Your task to perform on an android device: Go to internet settings Image 0: 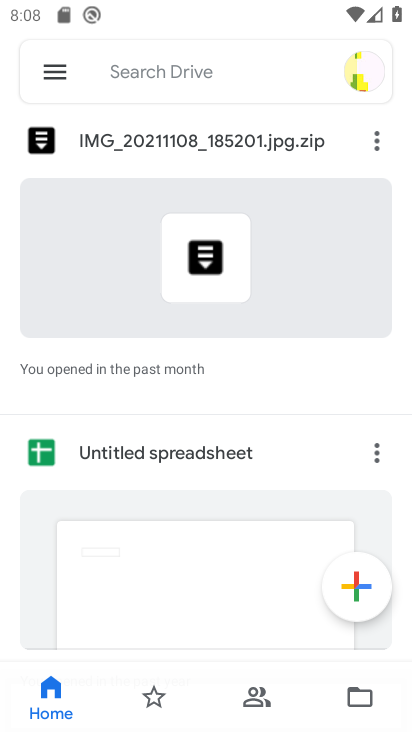
Step 0: drag from (260, 10) to (198, 630)
Your task to perform on an android device: Go to internet settings Image 1: 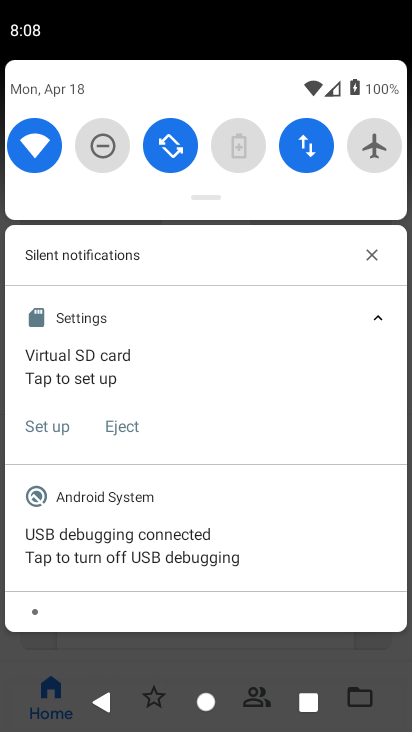
Step 1: drag from (223, 94) to (203, 544)
Your task to perform on an android device: Go to internet settings Image 2: 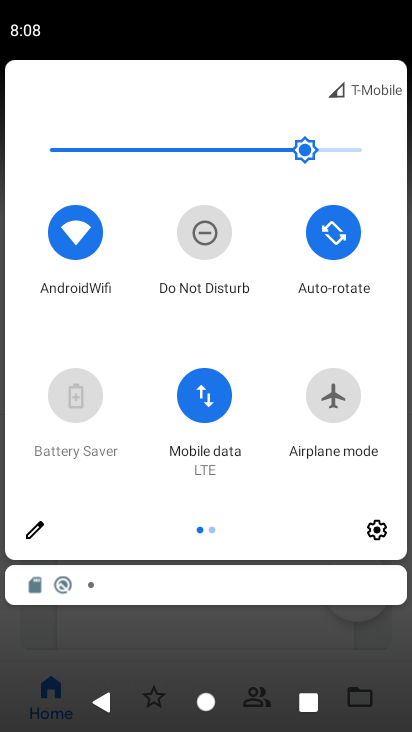
Step 2: click (379, 530)
Your task to perform on an android device: Go to internet settings Image 3: 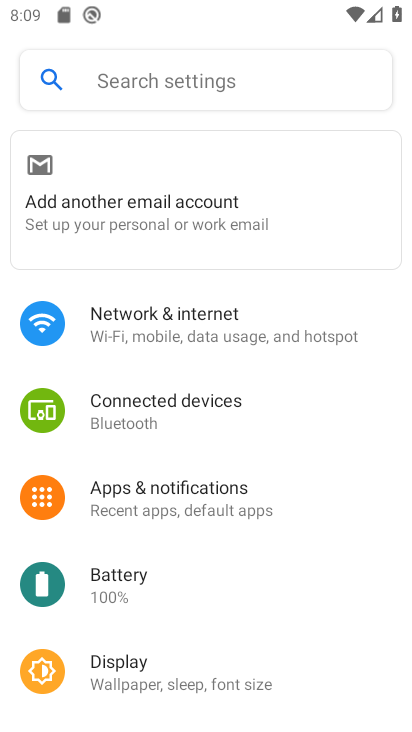
Step 3: click (199, 331)
Your task to perform on an android device: Go to internet settings Image 4: 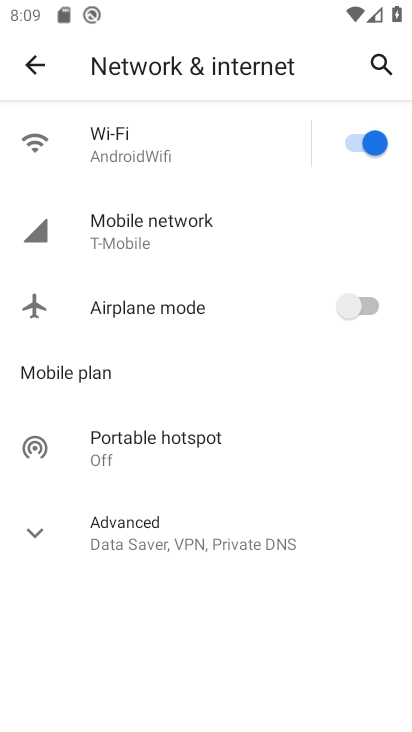
Step 4: task complete